Your task to perform on an android device: Search for "logitech g pro" on bestbuy.com, select the first entry, add it to the cart, then select checkout. Image 0: 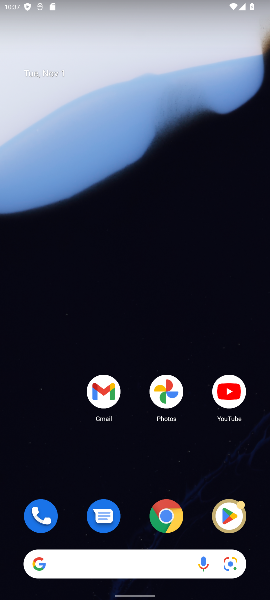
Step 0: click (166, 520)
Your task to perform on an android device: Search for "logitech g pro" on bestbuy.com, select the first entry, add it to the cart, then select checkout. Image 1: 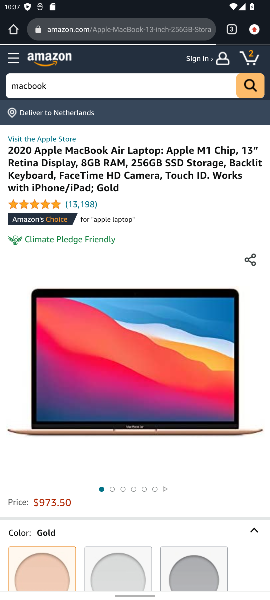
Step 1: click (228, 32)
Your task to perform on an android device: Search for "logitech g pro" on bestbuy.com, select the first entry, add it to the cart, then select checkout. Image 2: 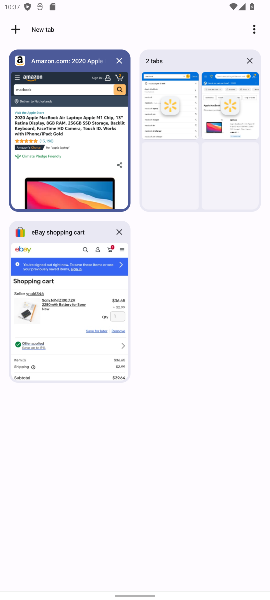
Step 2: click (13, 27)
Your task to perform on an android device: Search for "logitech g pro" on bestbuy.com, select the first entry, add it to the cart, then select checkout. Image 3: 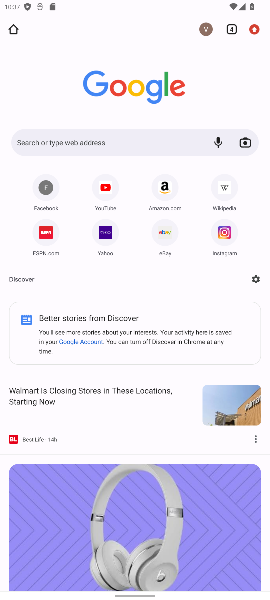
Step 3: click (125, 133)
Your task to perform on an android device: Search for "logitech g pro" on bestbuy.com, select the first entry, add it to the cart, then select checkout. Image 4: 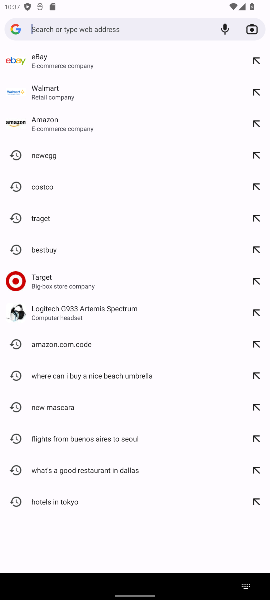
Step 4: type "bestbuy"
Your task to perform on an android device: Search for "logitech g pro" on bestbuy.com, select the first entry, add it to the cart, then select checkout. Image 5: 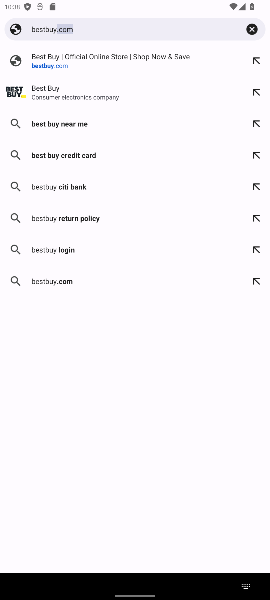
Step 5: click (95, 59)
Your task to perform on an android device: Search for "logitech g pro" on bestbuy.com, select the first entry, add it to the cart, then select checkout. Image 6: 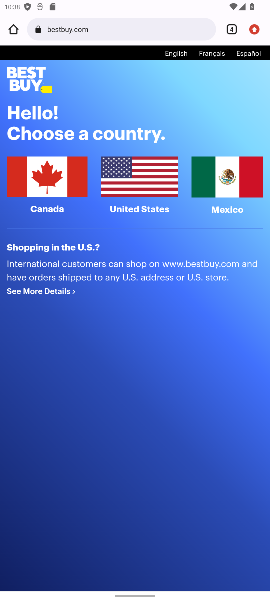
Step 6: click (133, 165)
Your task to perform on an android device: Search for "logitech g pro" on bestbuy.com, select the first entry, add it to the cart, then select checkout. Image 7: 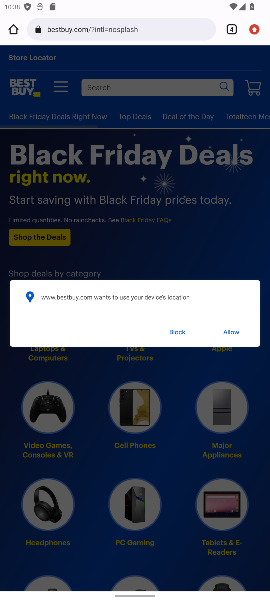
Step 7: click (178, 330)
Your task to perform on an android device: Search for "logitech g pro" on bestbuy.com, select the first entry, add it to the cart, then select checkout. Image 8: 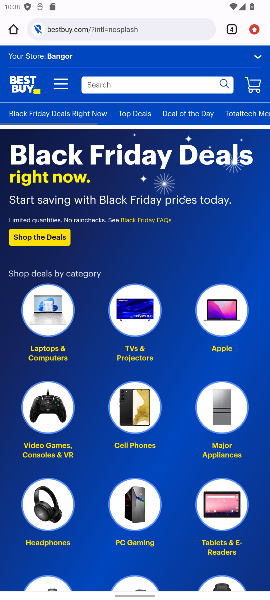
Step 8: click (174, 83)
Your task to perform on an android device: Search for "logitech g pro" on bestbuy.com, select the first entry, add it to the cart, then select checkout. Image 9: 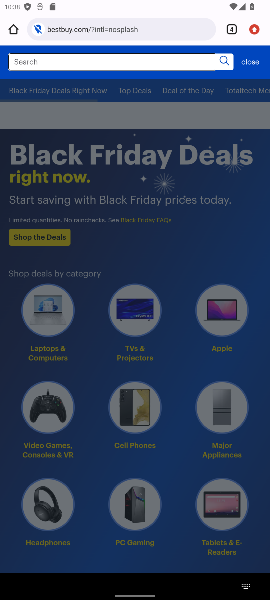
Step 9: type "logitech g pro"
Your task to perform on an android device: Search for "logitech g pro" on bestbuy.com, select the first entry, add it to the cart, then select checkout. Image 10: 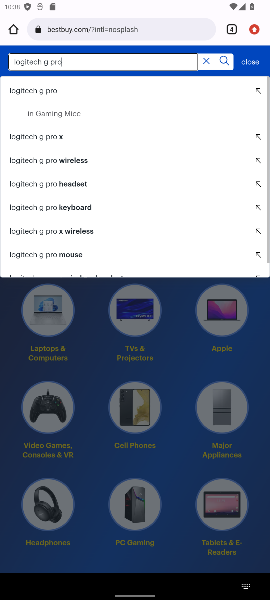
Step 10: click (34, 85)
Your task to perform on an android device: Search for "logitech g pro" on bestbuy.com, select the first entry, add it to the cart, then select checkout. Image 11: 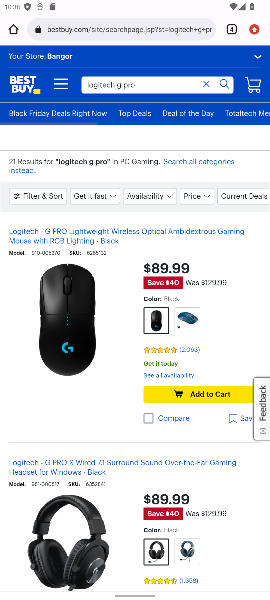
Step 11: click (200, 389)
Your task to perform on an android device: Search for "logitech g pro" on bestbuy.com, select the first entry, add it to the cart, then select checkout. Image 12: 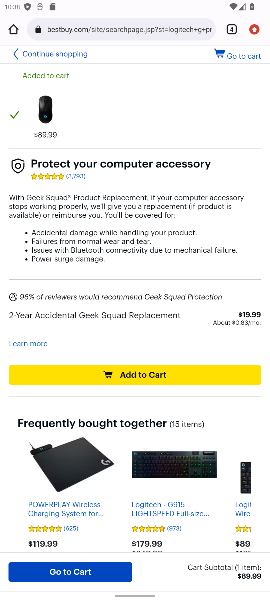
Step 12: click (239, 56)
Your task to perform on an android device: Search for "logitech g pro" on bestbuy.com, select the first entry, add it to the cart, then select checkout. Image 13: 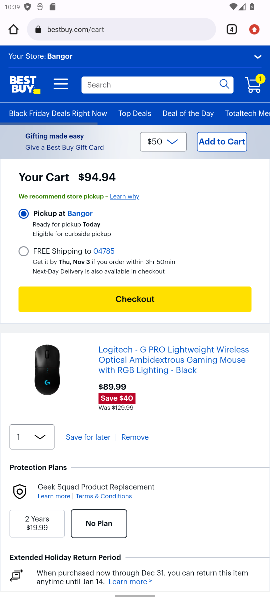
Step 13: click (154, 300)
Your task to perform on an android device: Search for "logitech g pro" on bestbuy.com, select the first entry, add it to the cart, then select checkout. Image 14: 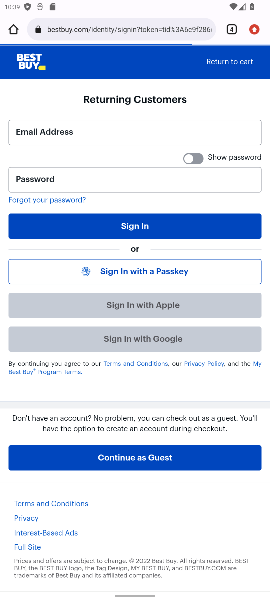
Step 14: task complete